Your task to perform on an android device: Open Google Maps Image 0: 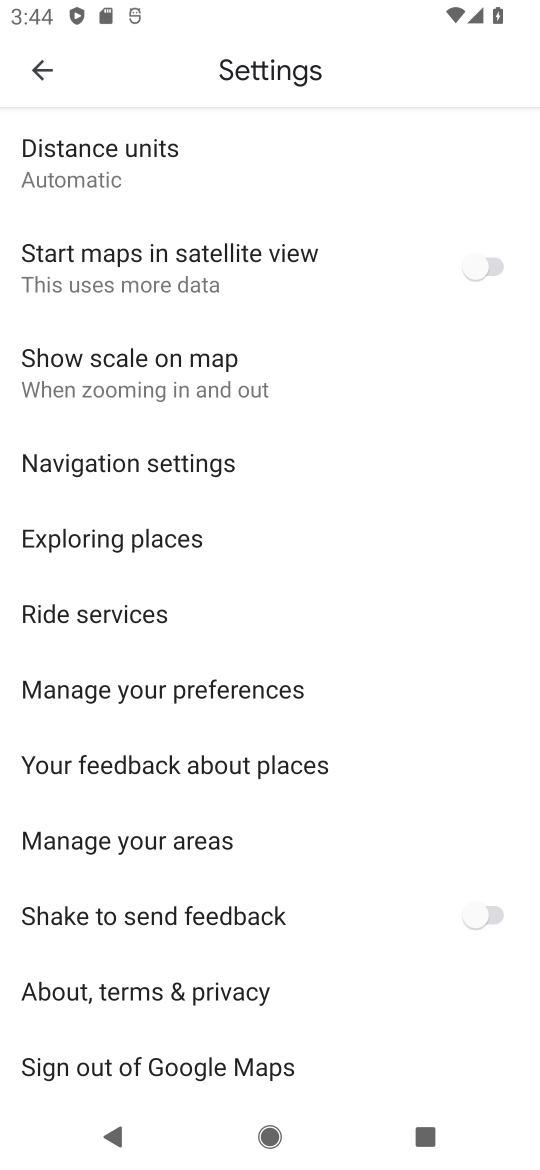
Step 0: click (35, 66)
Your task to perform on an android device: Open Google Maps Image 1: 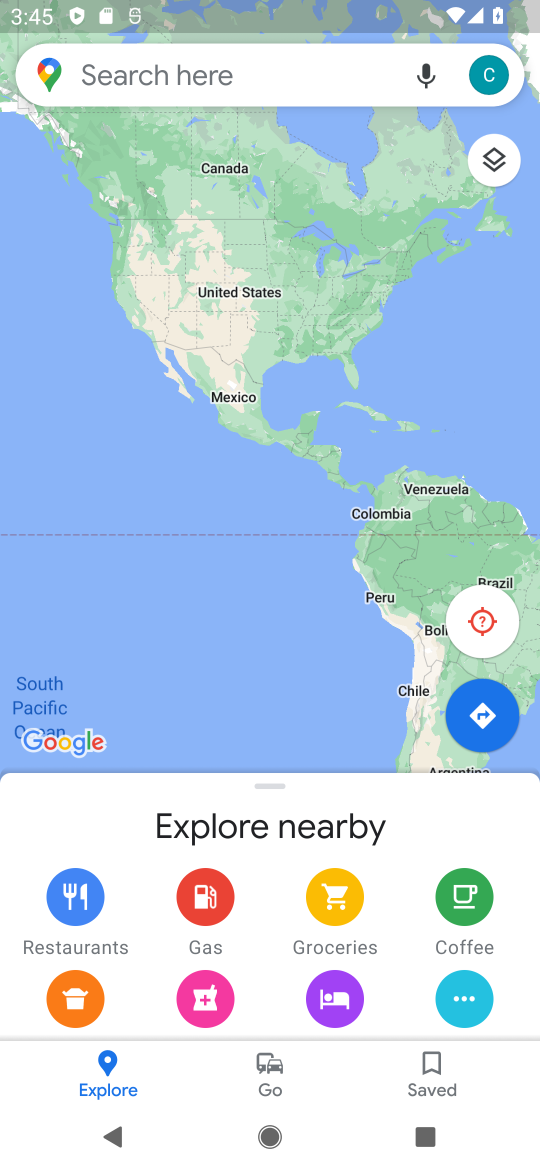
Step 1: task complete